Your task to perform on an android device: make emails show in primary in the gmail app Image 0: 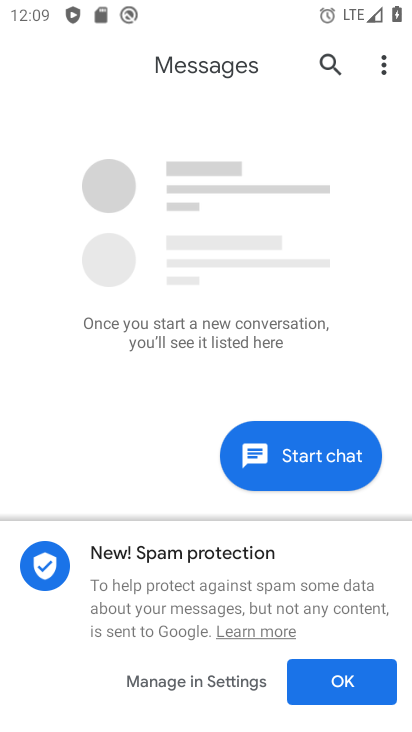
Step 0: press home button
Your task to perform on an android device: make emails show in primary in the gmail app Image 1: 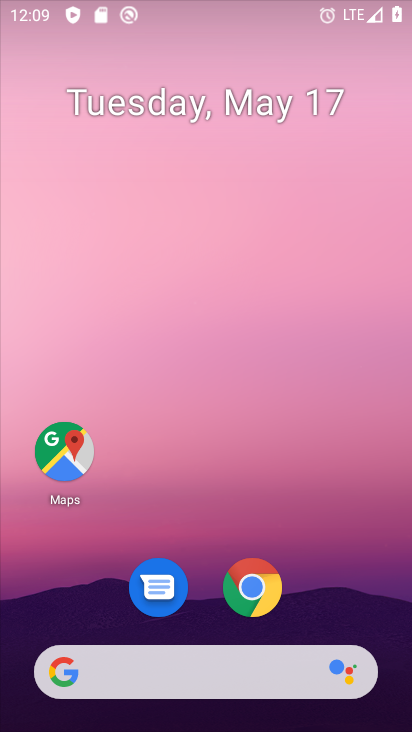
Step 1: drag from (391, 613) to (301, 93)
Your task to perform on an android device: make emails show in primary in the gmail app Image 2: 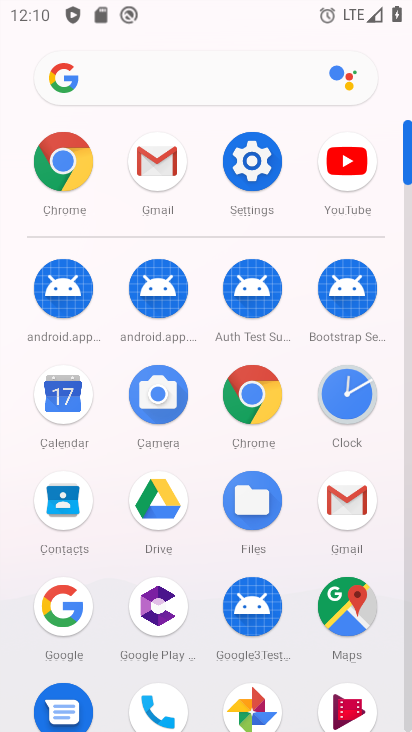
Step 2: click (335, 512)
Your task to perform on an android device: make emails show in primary in the gmail app Image 3: 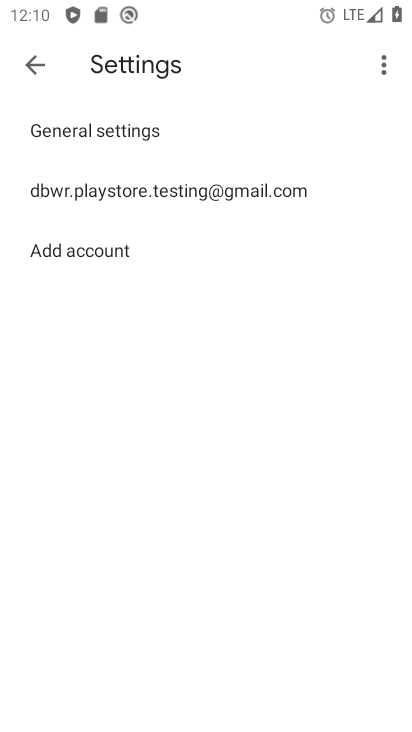
Step 3: task complete